Your task to perform on an android device: Go to calendar. Show me events next week Image 0: 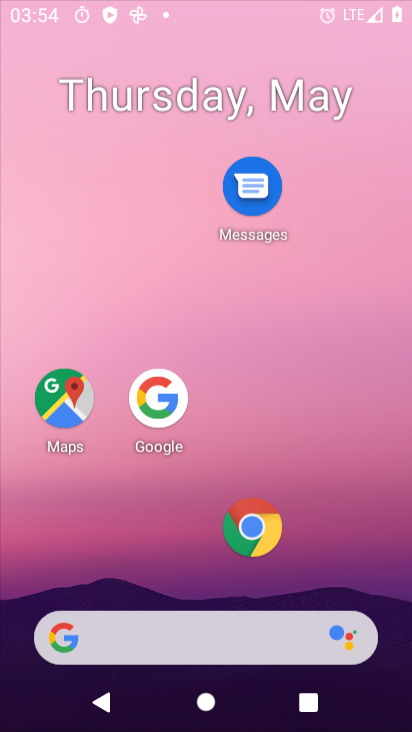
Step 0: click (257, 70)
Your task to perform on an android device: Go to calendar. Show me events next week Image 1: 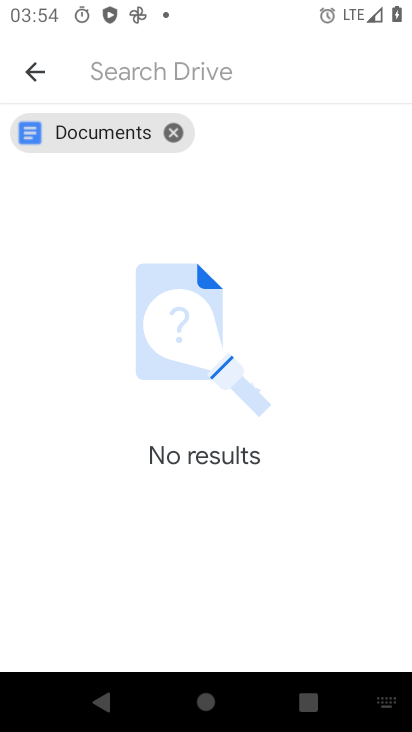
Step 1: press home button
Your task to perform on an android device: Go to calendar. Show me events next week Image 2: 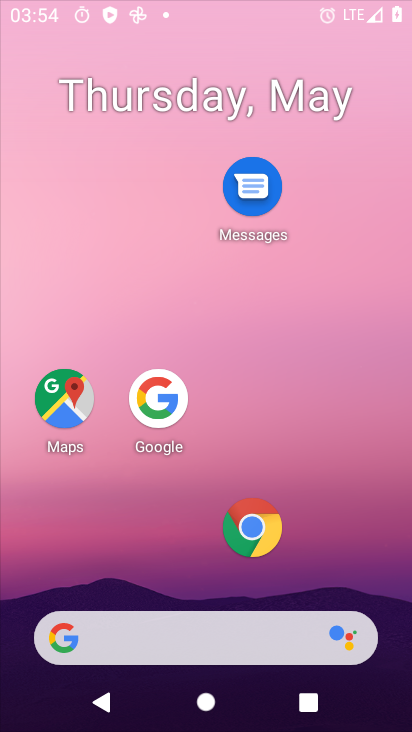
Step 2: drag from (193, 634) to (245, 146)
Your task to perform on an android device: Go to calendar. Show me events next week Image 3: 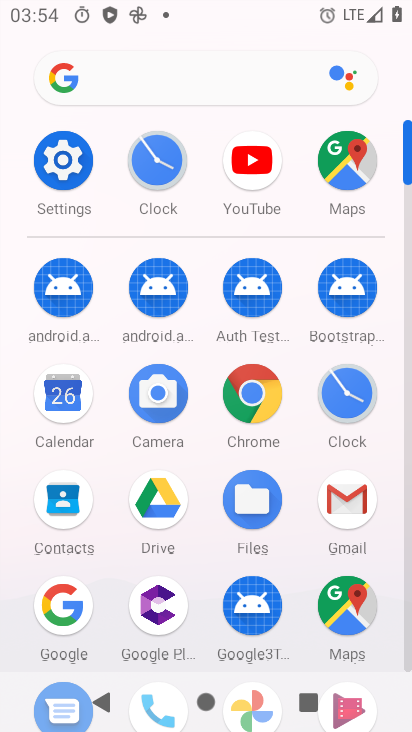
Step 3: click (66, 388)
Your task to perform on an android device: Go to calendar. Show me events next week Image 4: 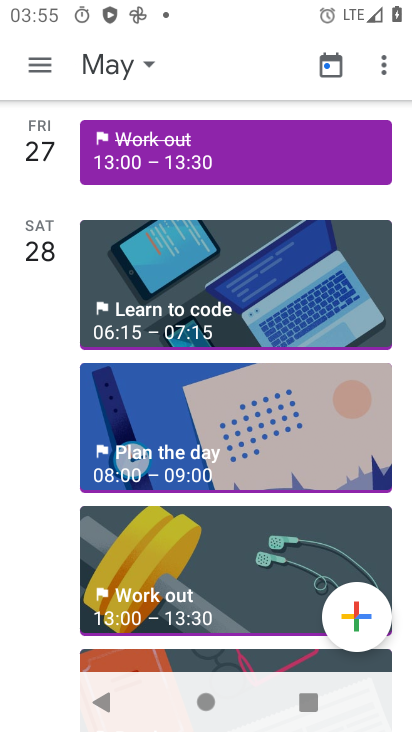
Step 4: click (129, 71)
Your task to perform on an android device: Go to calendar. Show me events next week Image 5: 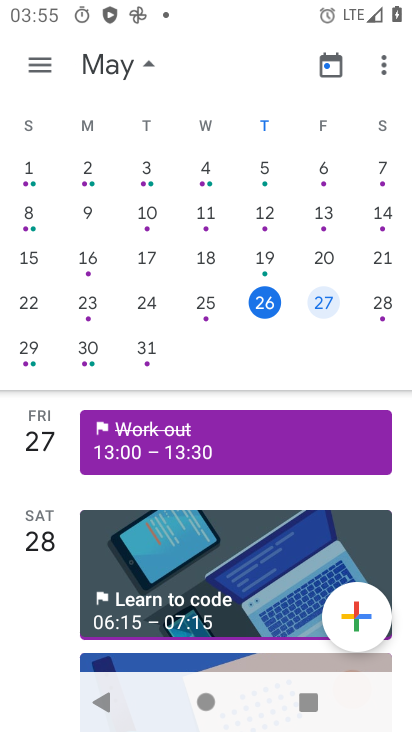
Step 5: click (324, 310)
Your task to perform on an android device: Go to calendar. Show me events next week Image 6: 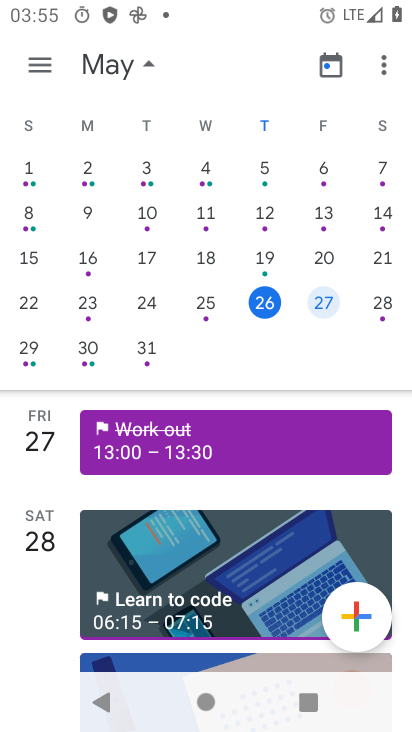
Step 6: click (383, 310)
Your task to perform on an android device: Go to calendar. Show me events next week Image 7: 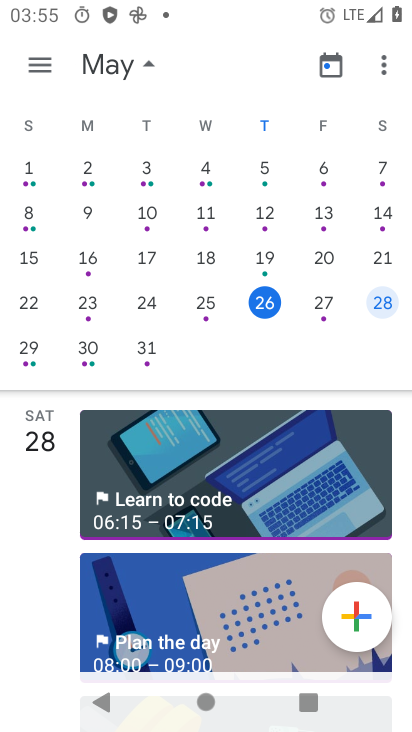
Step 7: task complete